Your task to perform on an android device: Open calendar and show me the third week of next month Image 0: 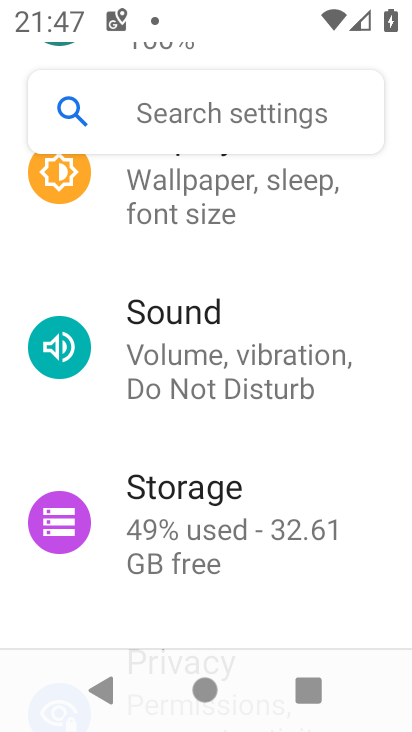
Step 0: press home button
Your task to perform on an android device: Open calendar and show me the third week of next month Image 1: 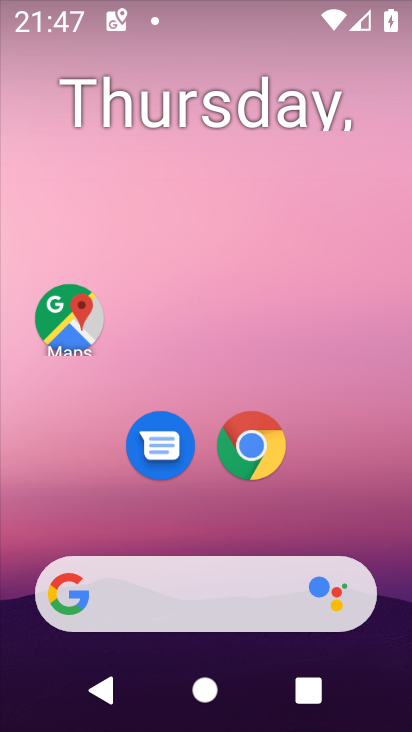
Step 1: drag from (5, 628) to (223, 178)
Your task to perform on an android device: Open calendar and show me the third week of next month Image 2: 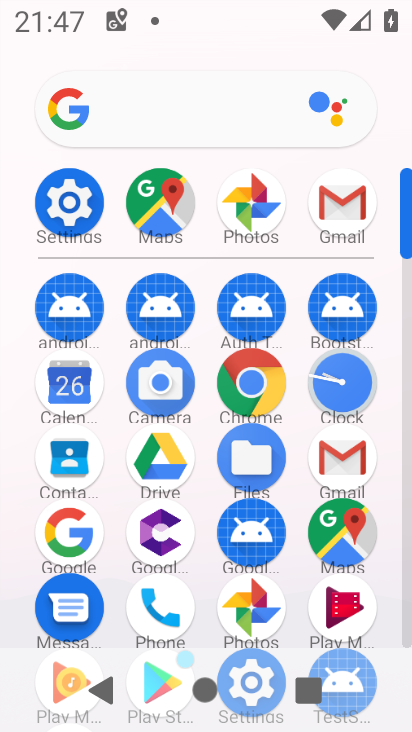
Step 2: click (63, 383)
Your task to perform on an android device: Open calendar and show me the third week of next month Image 3: 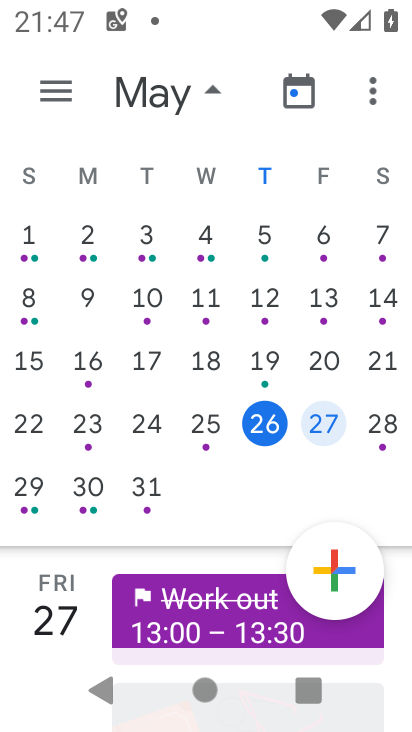
Step 3: drag from (398, 313) to (30, 453)
Your task to perform on an android device: Open calendar and show me the third week of next month Image 4: 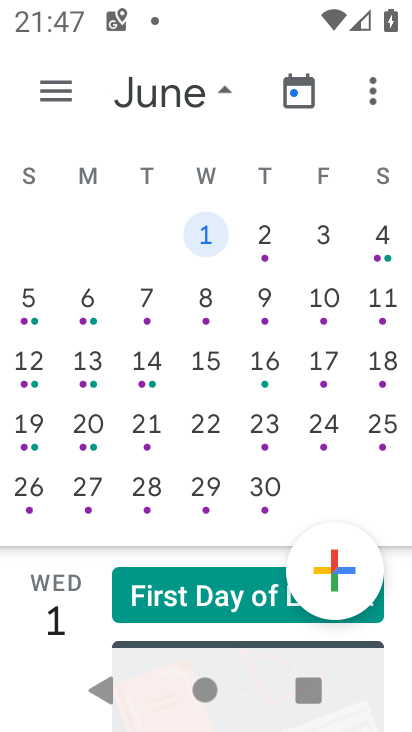
Step 4: click (198, 299)
Your task to perform on an android device: Open calendar and show me the third week of next month Image 5: 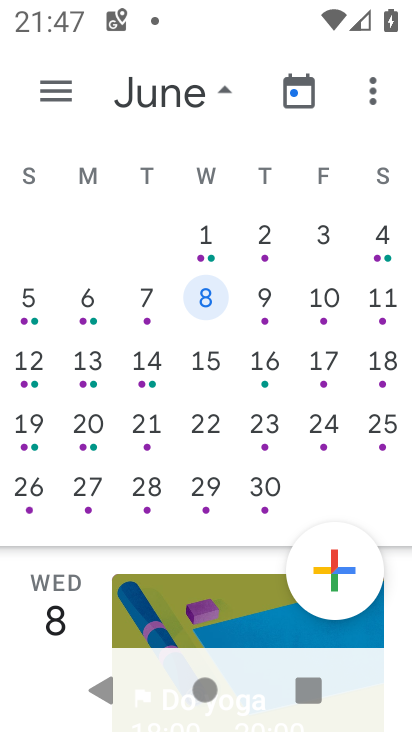
Step 5: click (222, 362)
Your task to perform on an android device: Open calendar and show me the third week of next month Image 6: 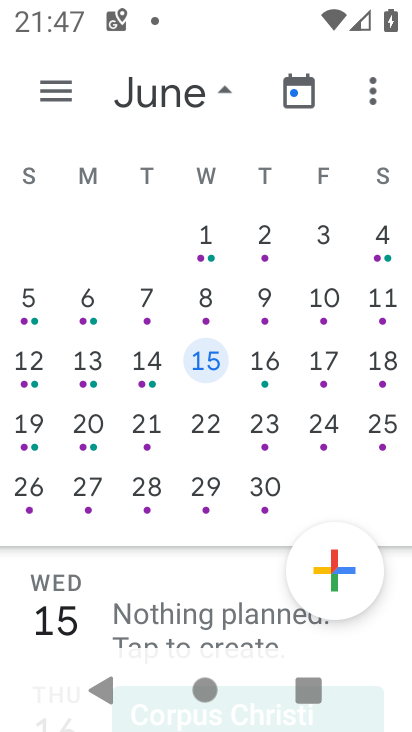
Step 6: task complete